Your task to perform on an android device: Open the web browser Image 0: 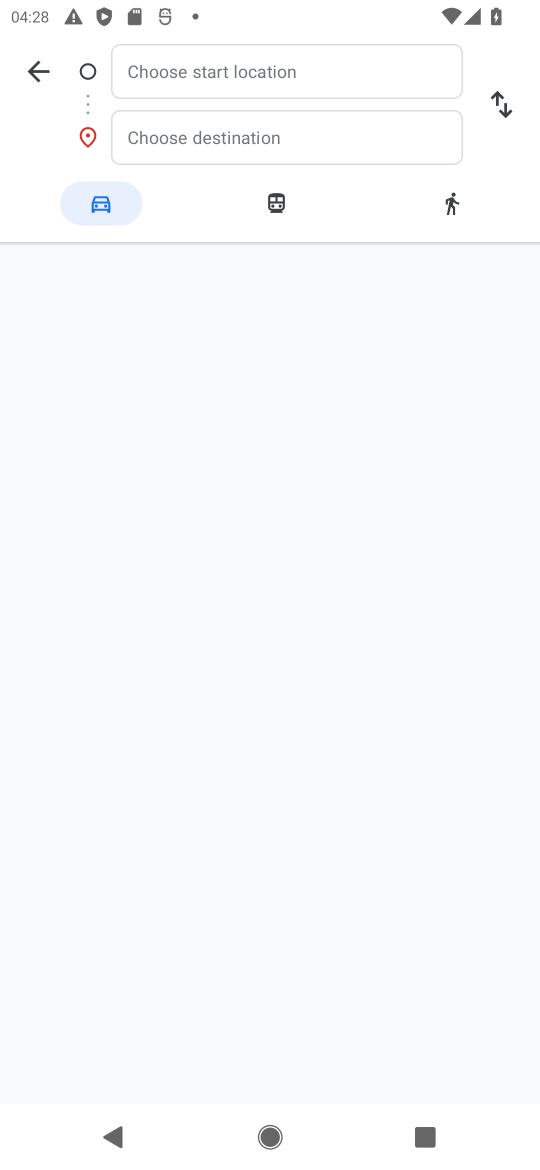
Step 0: press home button
Your task to perform on an android device: Open the web browser Image 1: 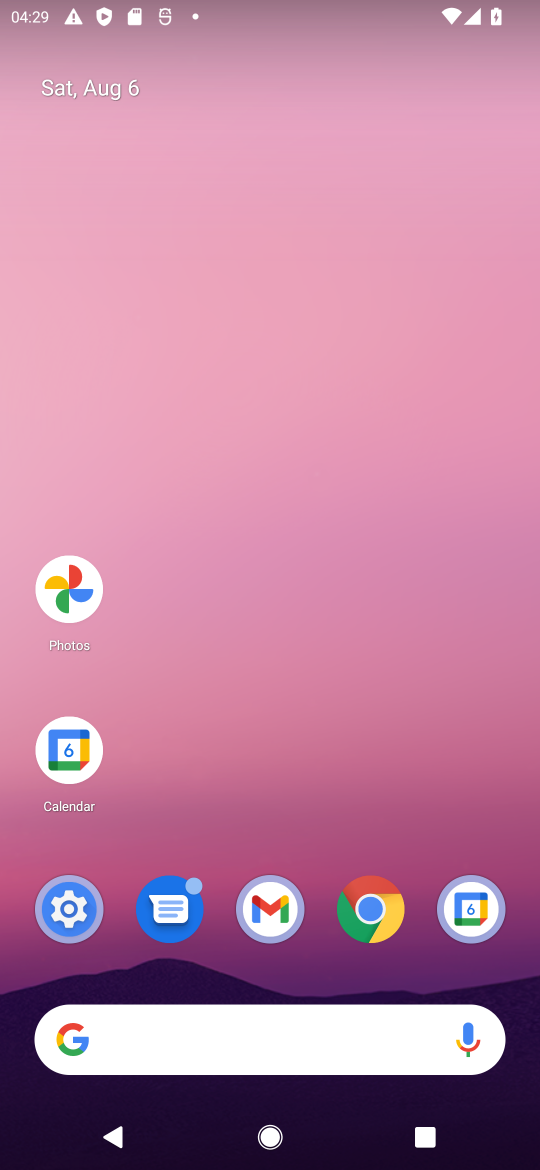
Step 1: click (380, 906)
Your task to perform on an android device: Open the web browser Image 2: 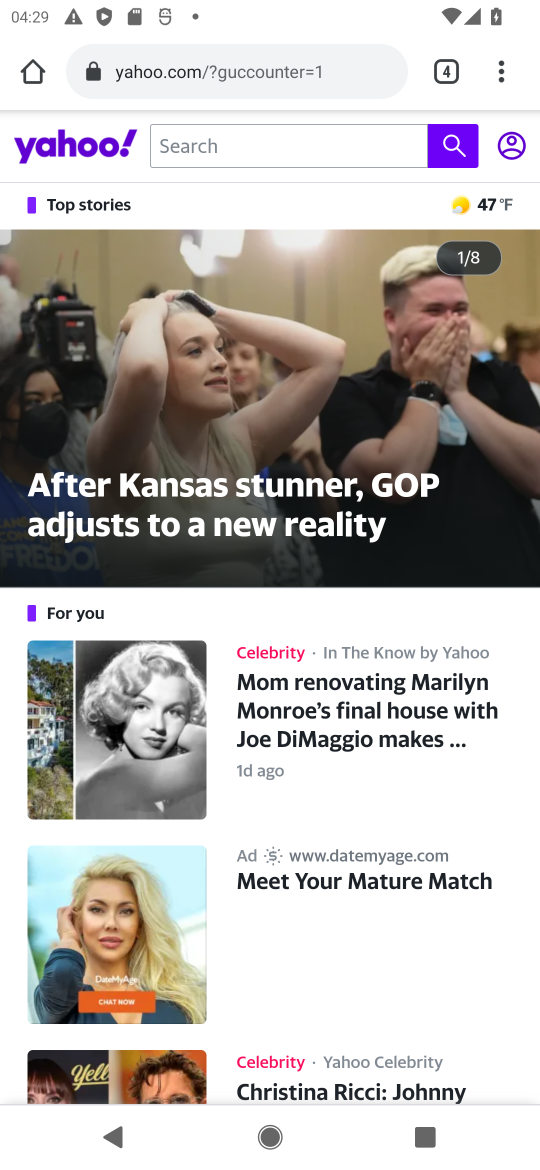
Step 2: task complete